Your task to perform on an android device: Check the weather Image 0: 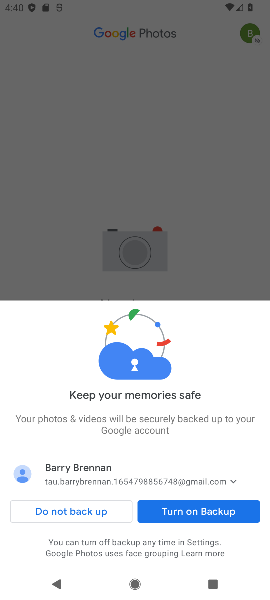
Step 0: press home button
Your task to perform on an android device: Check the weather Image 1: 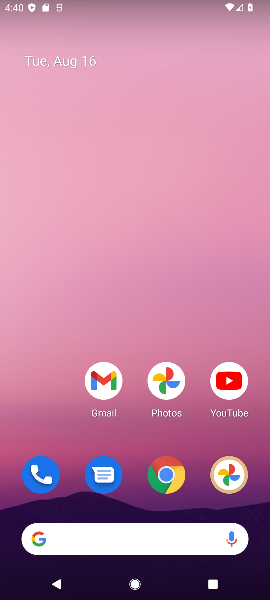
Step 1: drag from (252, 483) to (135, 30)
Your task to perform on an android device: Check the weather Image 2: 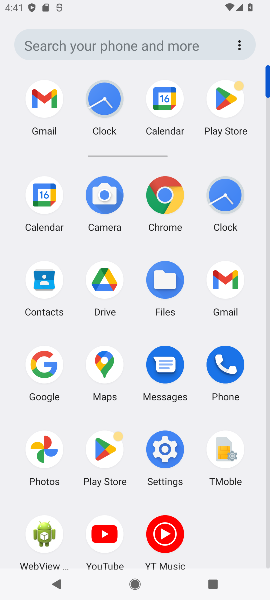
Step 2: click (48, 376)
Your task to perform on an android device: Check the weather Image 3: 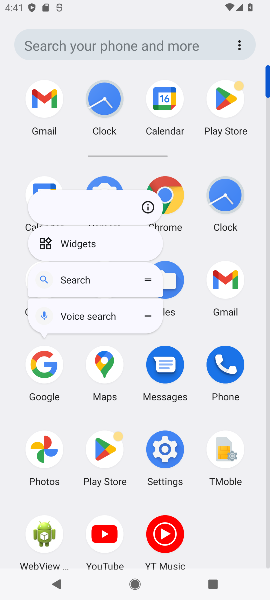
Step 3: click (48, 376)
Your task to perform on an android device: Check the weather Image 4: 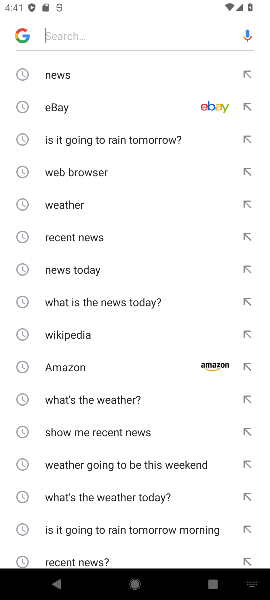
Step 4: type "Check the weather"
Your task to perform on an android device: Check the weather Image 5: 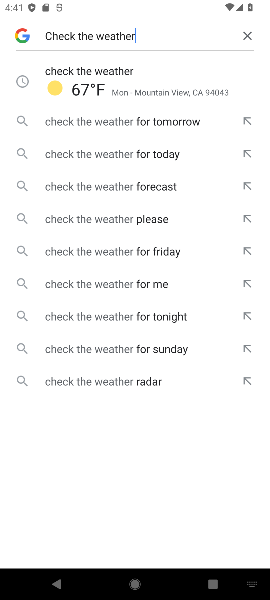
Step 5: click (110, 79)
Your task to perform on an android device: Check the weather Image 6: 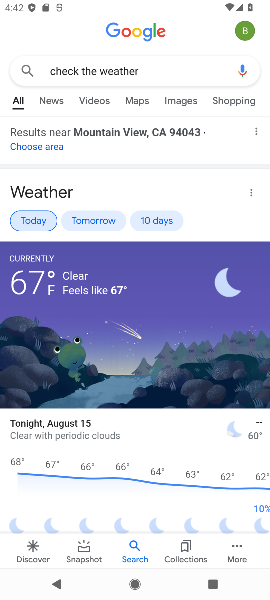
Step 6: task complete